Your task to perform on an android device: turn on wifi Image 0: 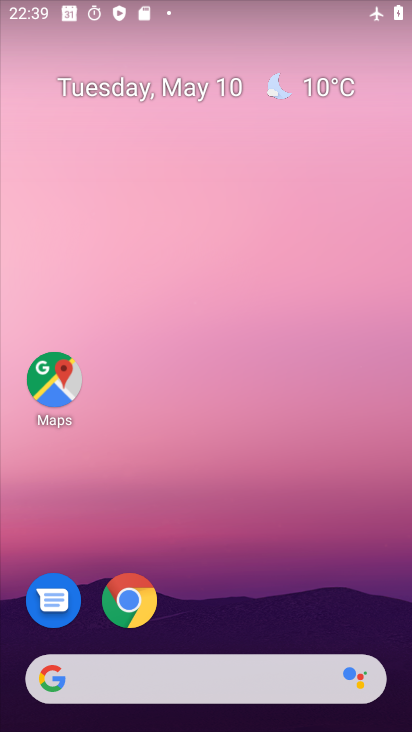
Step 0: drag from (251, 569) to (379, 89)
Your task to perform on an android device: turn on wifi Image 1: 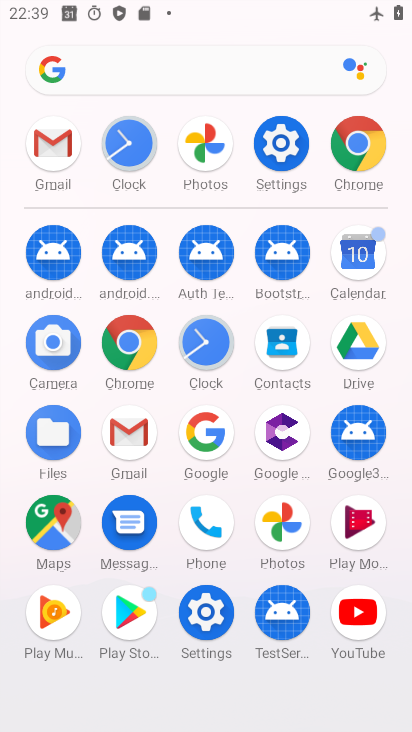
Step 1: click (301, 152)
Your task to perform on an android device: turn on wifi Image 2: 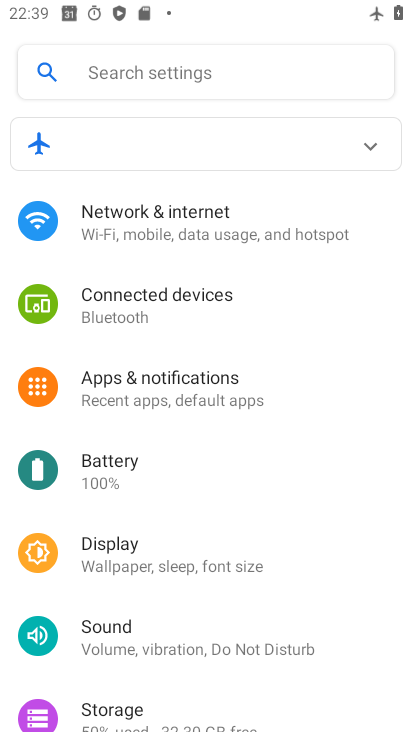
Step 2: click (196, 213)
Your task to perform on an android device: turn on wifi Image 3: 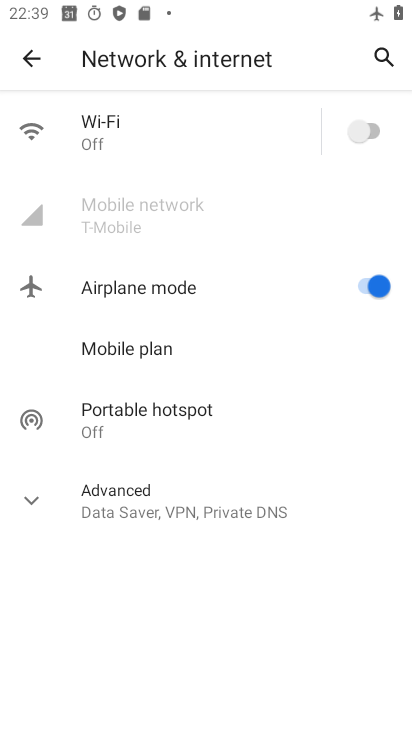
Step 3: click (354, 143)
Your task to perform on an android device: turn on wifi Image 4: 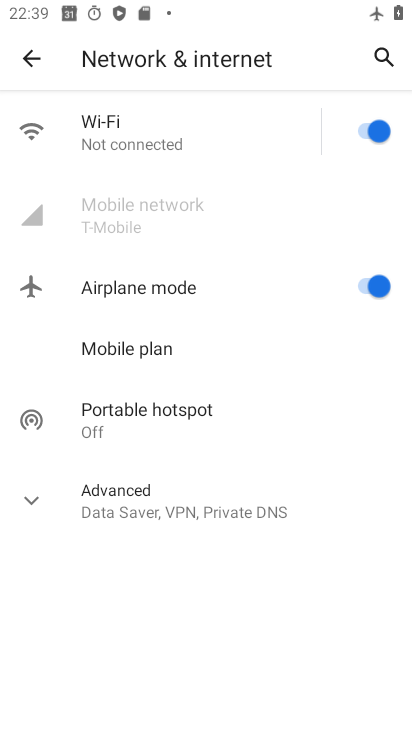
Step 4: task complete